Your task to perform on an android device: make emails show in primary in the gmail app Image 0: 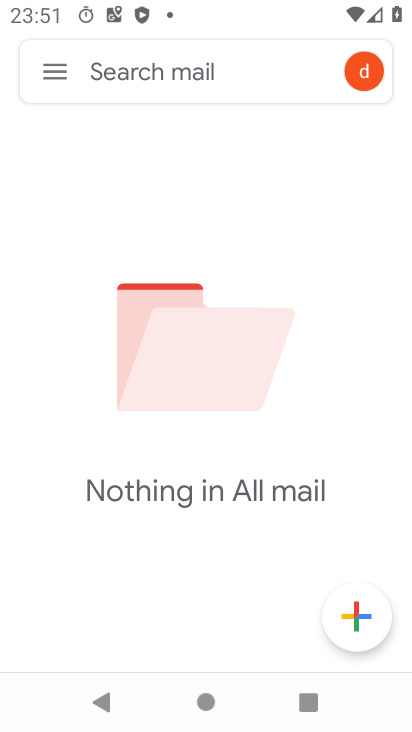
Step 0: drag from (198, 504) to (225, 253)
Your task to perform on an android device: make emails show in primary in the gmail app Image 1: 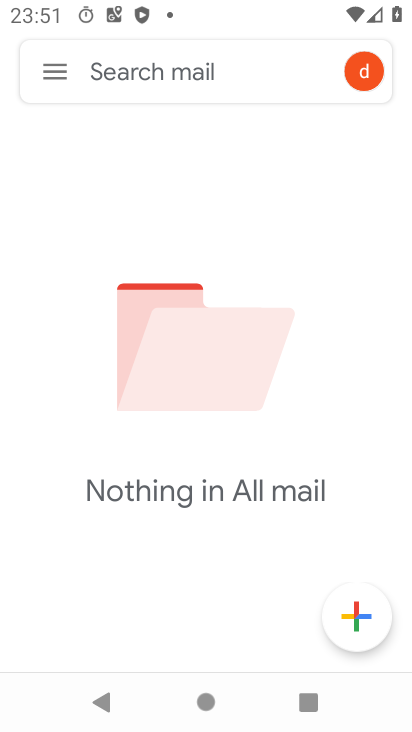
Step 1: click (68, 66)
Your task to perform on an android device: make emails show in primary in the gmail app Image 2: 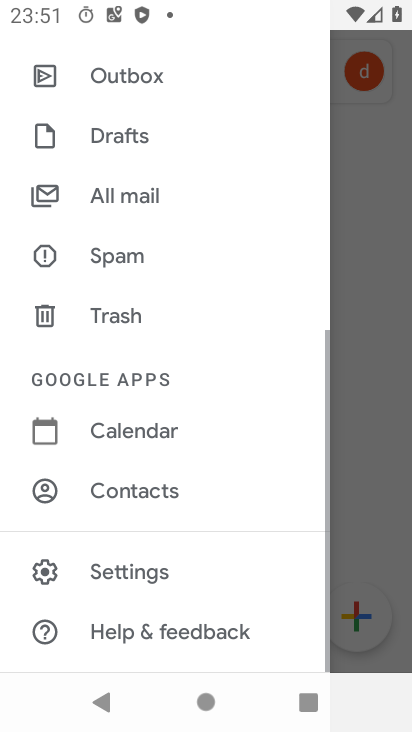
Step 2: drag from (129, 199) to (247, 731)
Your task to perform on an android device: make emails show in primary in the gmail app Image 3: 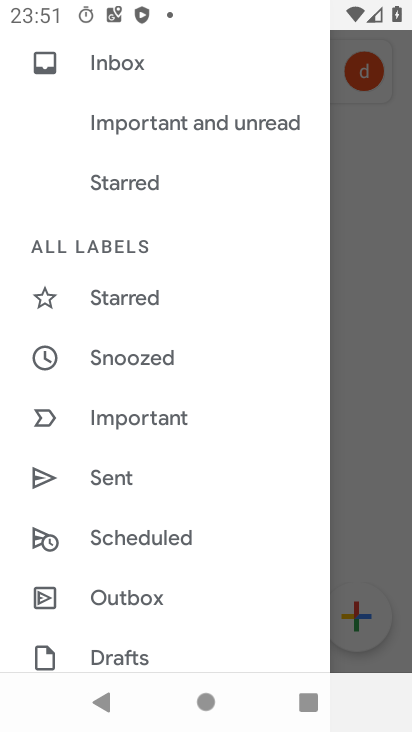
Step 3: drag from (134, 131) to (168, 664)
Your task to perform on an android device: make emails show in primary in the gmail app Image 4: 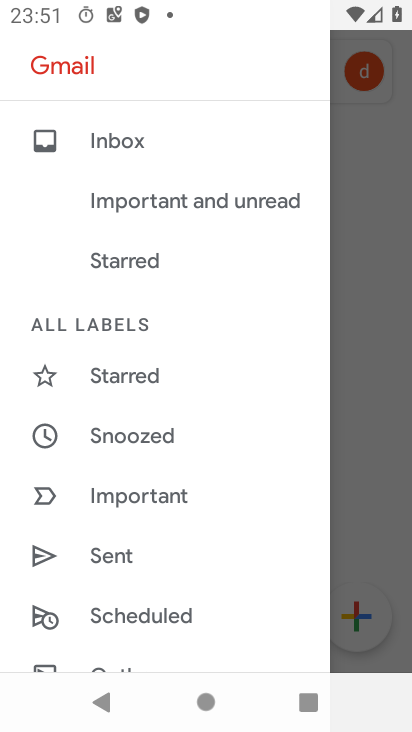
Step 4: click (142, 145)
Your task to perform on an android device: make emails show in primary in the gmail app Image 5: 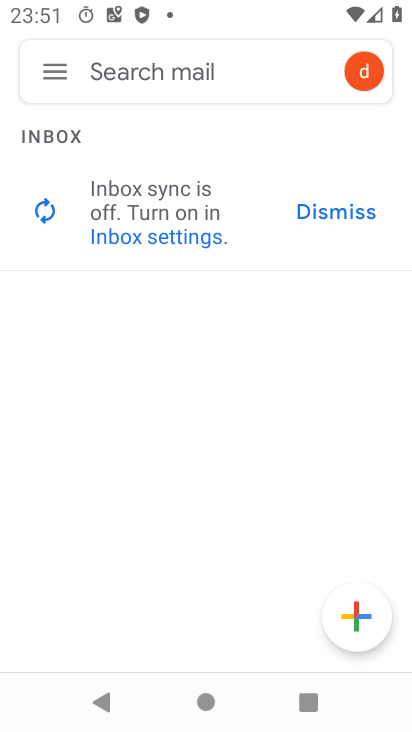
Step 5: click (69, 80)
Your task to perform on an android device: make emails show in primary in the gmail app Image 6: 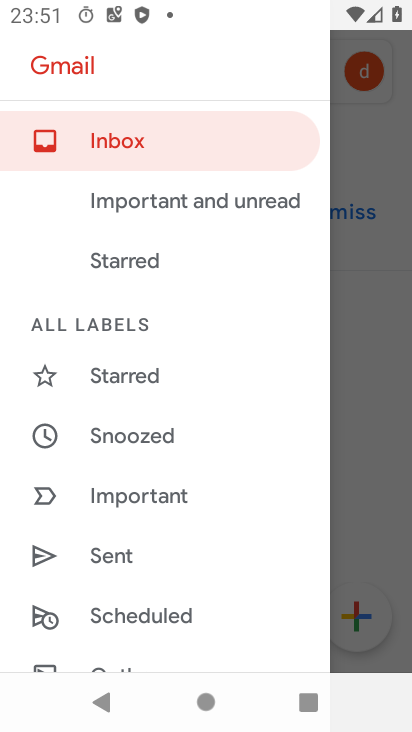
Step 6: click (121, 150)
Your task to perform on an android device: make emails show in primary in the gmail app Image 7: 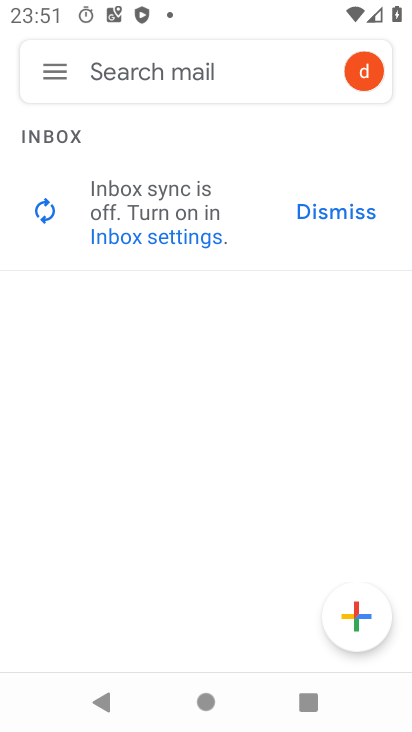
Step 7: drag from (208, 555) to (245, 247)
Your task to perform on an android device: make emails show in primary in the gmail app Image 8: 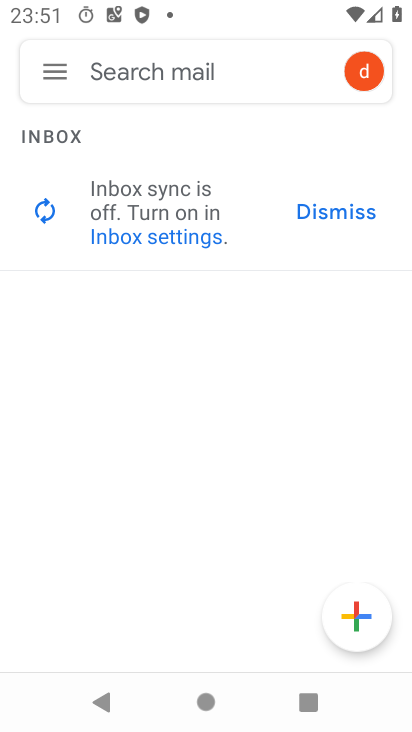
Step 8: drag from (242, 514) to (234, 320)
Your task to perform on an android device: make emails show in primary in the gmail app Image 9: 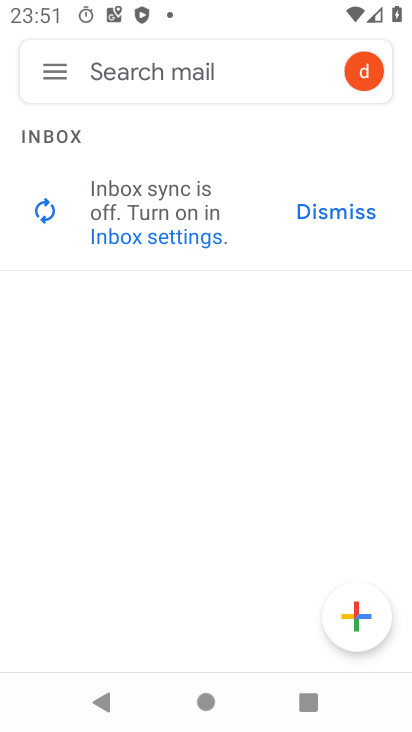
Step 9: drag from (201, 470) to (233, 268)
Your task to perform on an android device: make emails show in primary in the gmail app Image 10: 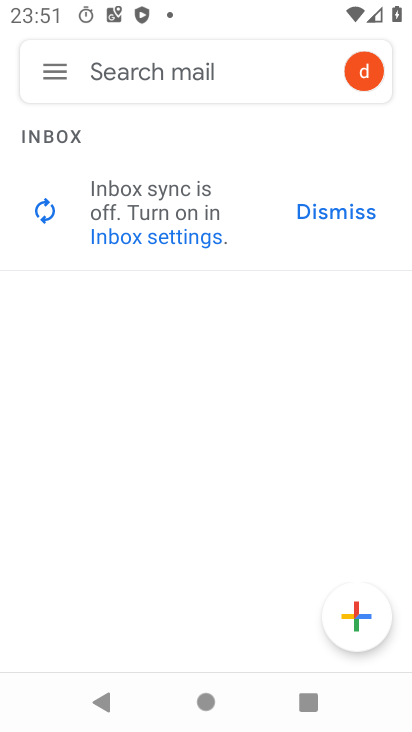
Step 10: drag from (232, 172) to (316, 495)
Your task to perform on an android device: make emails show in primary in the gmail app Image 11: 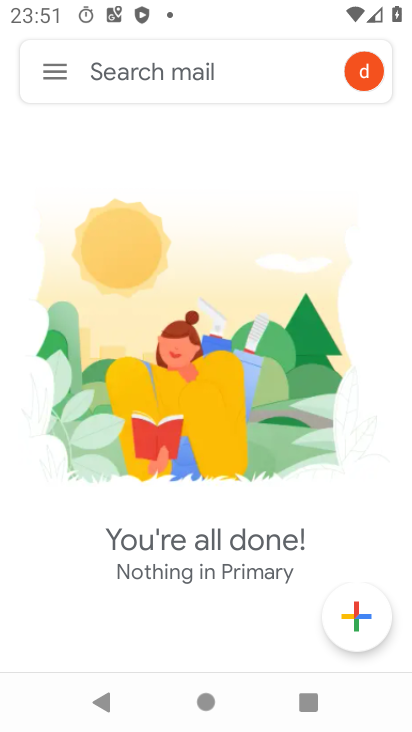
Step 11: drag from (163, 471) to (197, 316)
Your task to perform on an android device: make emails show in primary in the gmail app Image 12: 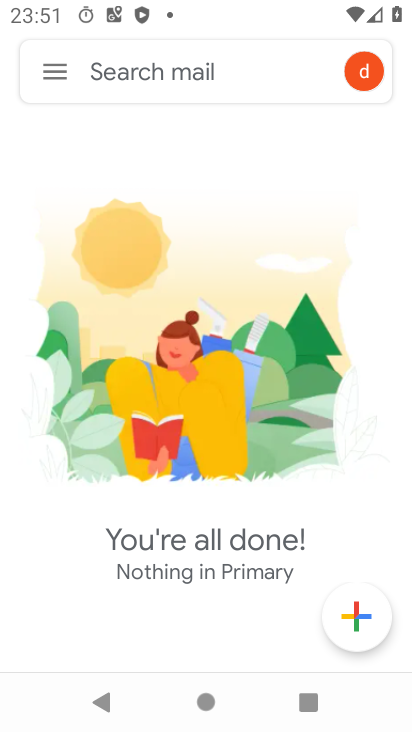
Step 12: click (63, 80)
Your task to perform on an android device: make emails show in primary in the gmail app Image 13: 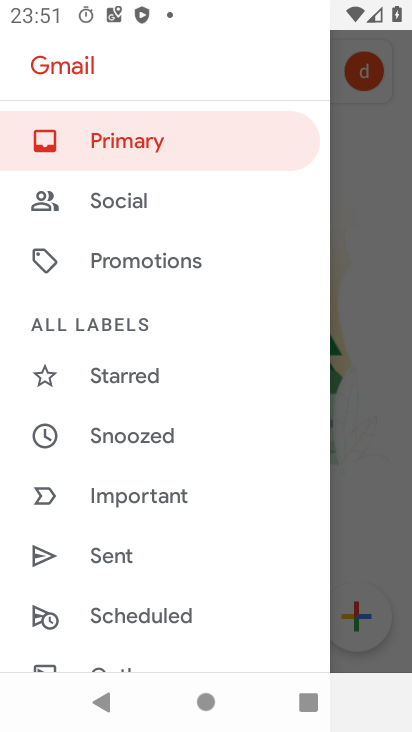
Step 13: drag from (162, 526) to (186, 255)
Your task to perform on an android device: make emails show in primary in the gmail app Image 14: 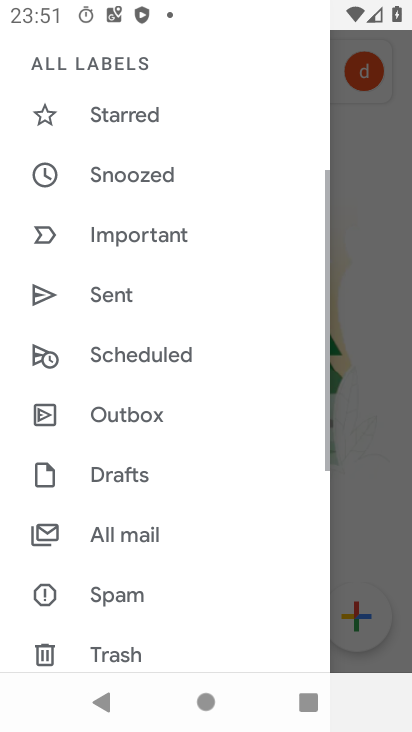
Step 14: drag from (164, 129) to (249, 704)
Your task to perform on an android device: make emails show in primary in the gmail app Image 15: 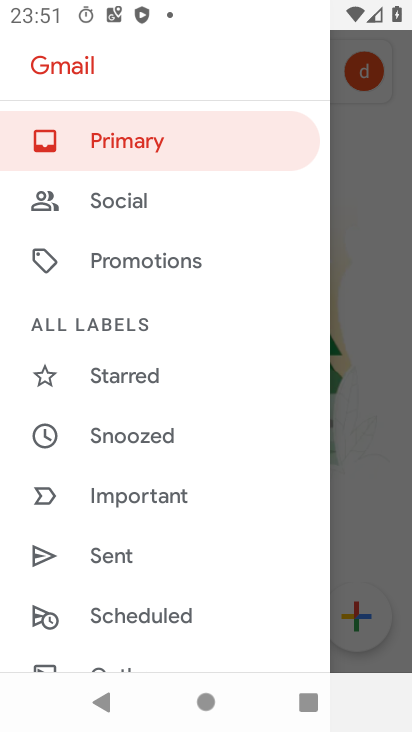
Step 15: drag from (184, 620) to (233, 182)
Your task to perform on an android device: make emails show in primary in the gmail app Image 16: 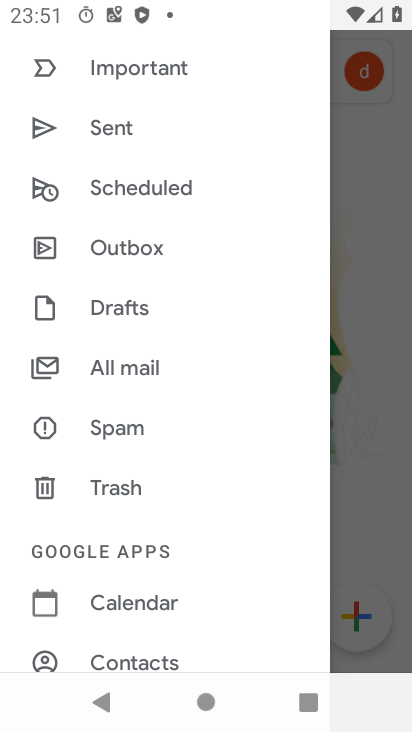
Step 16: click (384, 284)
Your task to perform on an android device: make emails show in primary in the gmail app Image 17: 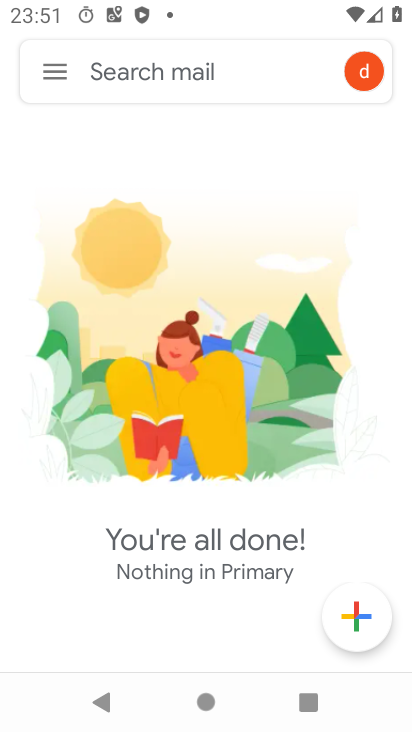
Step 17: drag from (197, 535) to (222, 298)
Your task to perform on an android device: make emails show in primary in the gmail app Image 18: 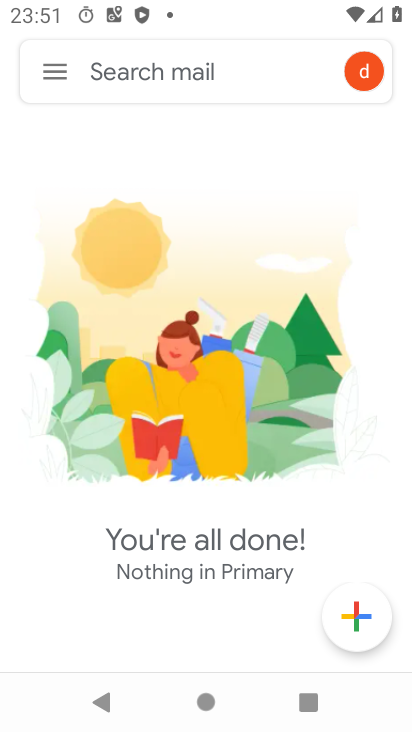
Step 18: click (202, 165)
Your task to perform on an android device: make emails show in primary in the gmail app Image 19: 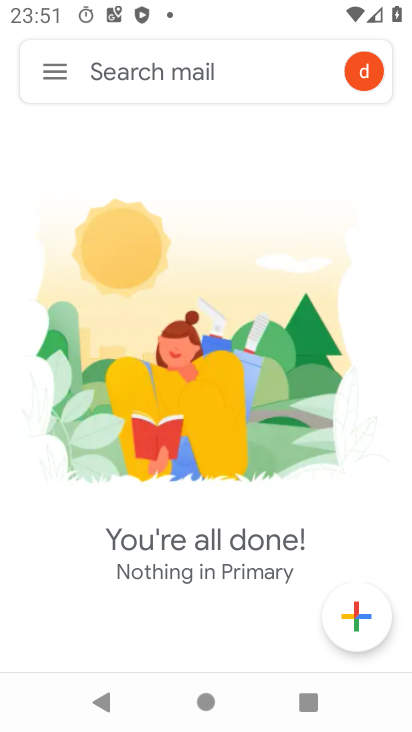
Step 19: click (202, 165)
Your task to perform on an android device: make emails show in primary in the gmail app Image 20: 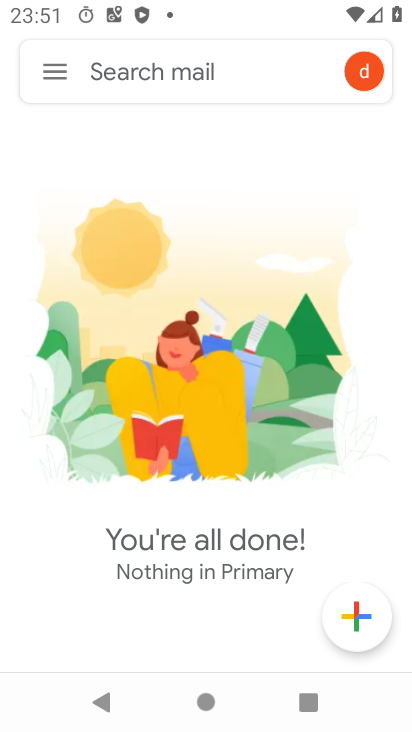
Step 20: task complete